Your task to perform on an android device: Show me productivity apps on the Play Store Image 0: 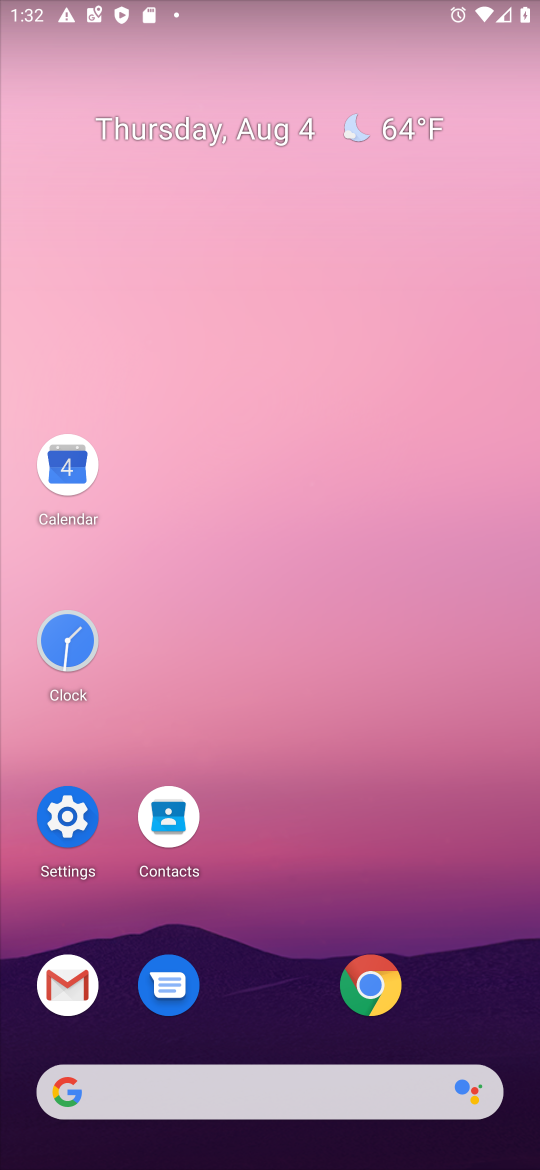
Step 0: drag from (270, 955) to (256, 202)
Your task to perform on an android device: Show me productivity apps on the Play Store Image 1: 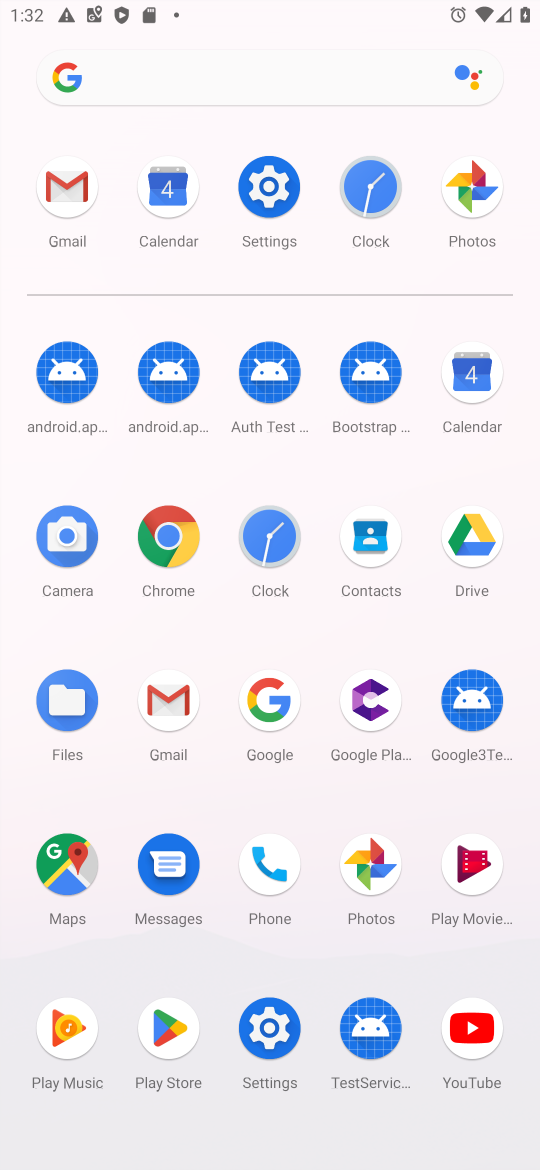
Step 1: click (160, 1031)
Your task to perform on an android device: Show me productivity apps on the Play Store Image 2: 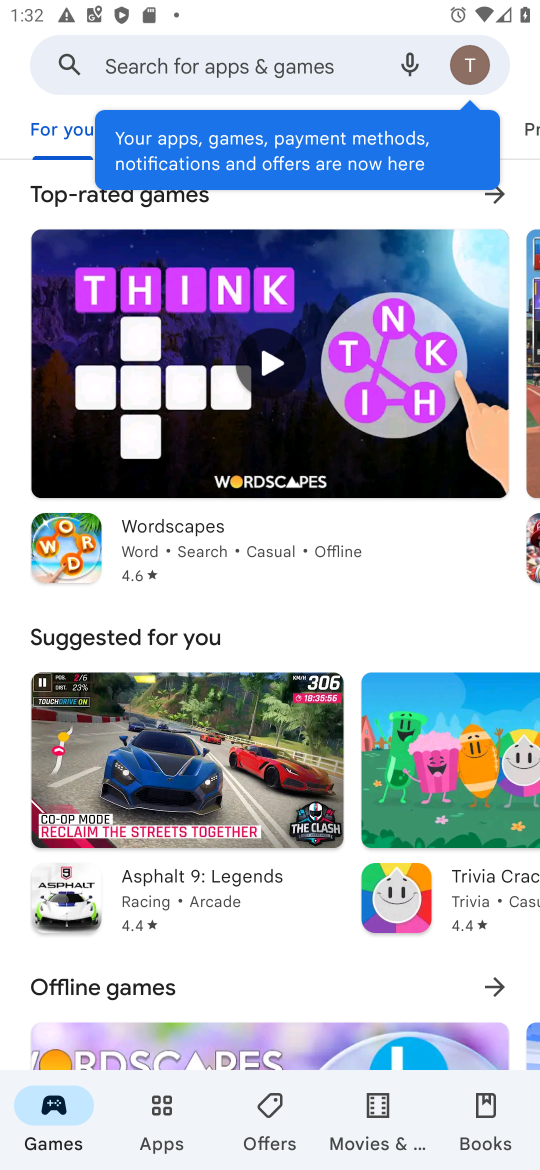
Step 2: click (166, 1120)
Your task to perform on an android device: Show me productivity apps on the Play Store Image 3: 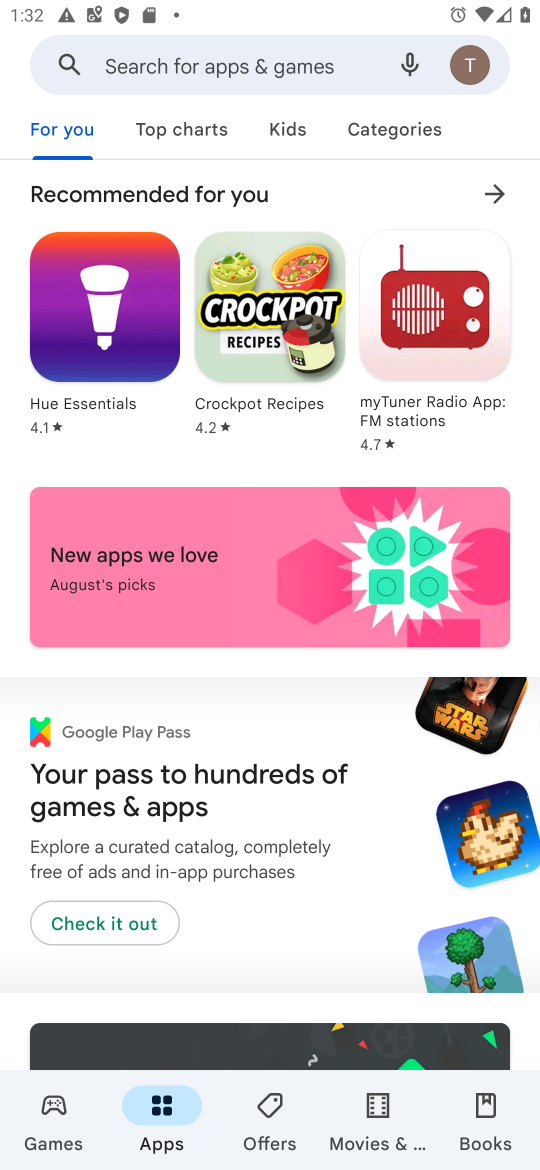
Step 3: task complete